Your task to perform on an android device: change text size in settings app Image 0: 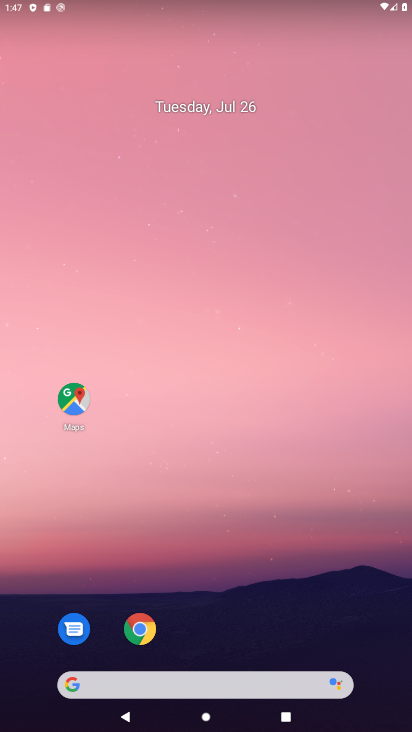
Step 0: drag from (204, 557) to (204, 176)
Your task to perform on an android device: change text size in settings app Image 1: 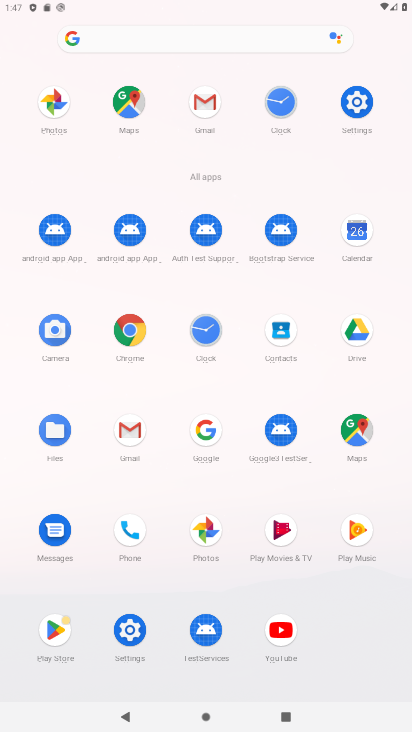
Step 1: click (349, 113)
Your task to perform on an android device: change text size in settings app Image 2: 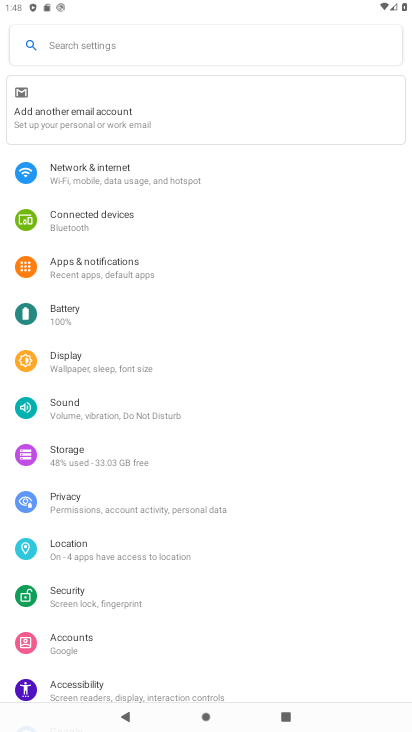
Step 2: click (122, 360)
Your task to perform on an android device: change text size in settings app Image 3: 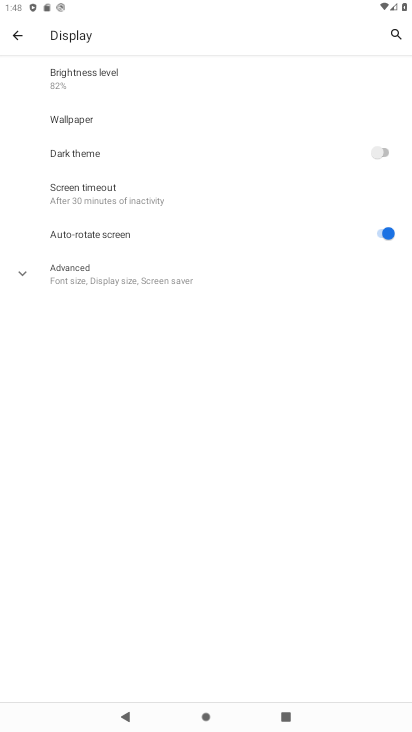
Step 3: click (74, 277)
Your task to perform on an android device: change text size in settings app Image 4: 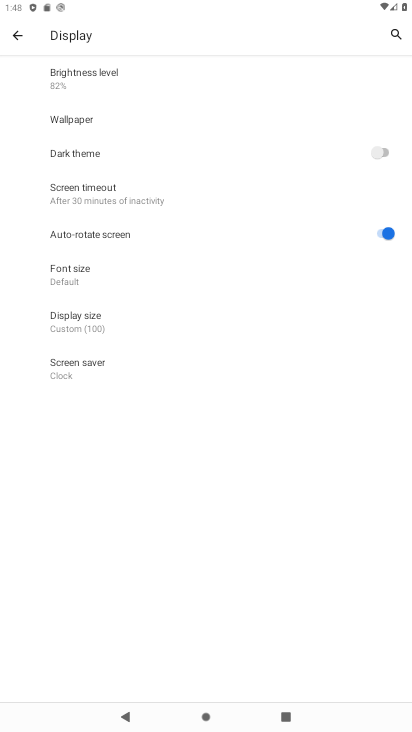
Step 4: click (84, 279)
Your task to perform on an android device: change text size in settings app Image 5: 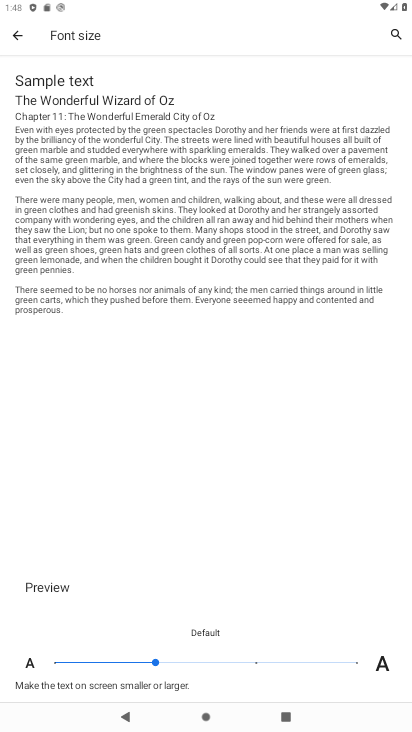
Step 5: click (352, 645)
Your task to perform on an android device: change text size in settings app Image 6: 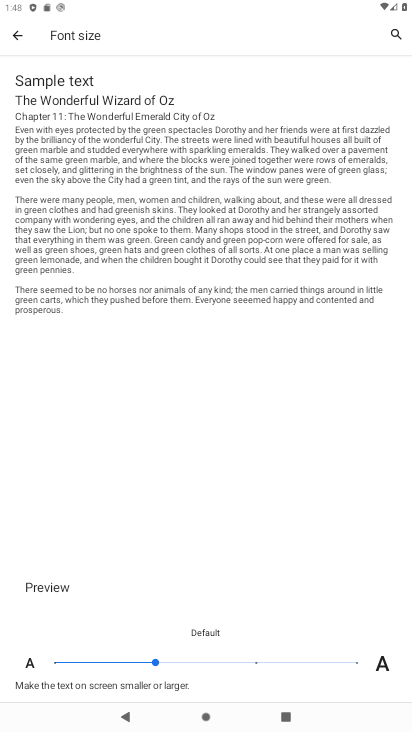
Step 6: click (361, 659)
Your task to perform on an android device: change text size in settings app Image 7: 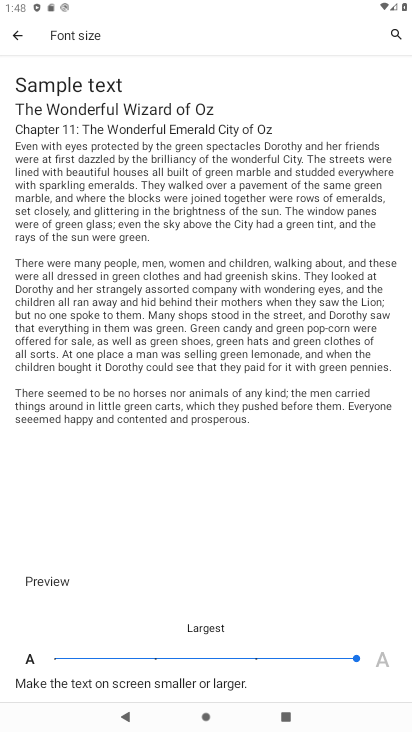
Step 7: task complete